Your task to perform on an android device: Open Youtube and go to "Your channel" Image 0: 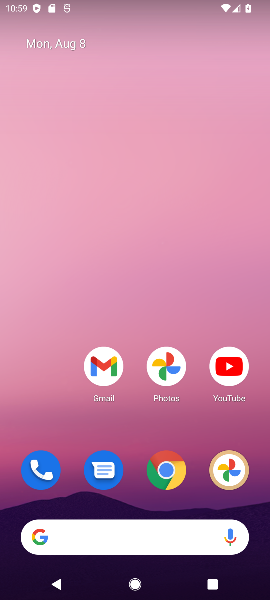
Step 0: drag from (132, 376) to (152, 27)
Your task to perform on an android device: Open Youtube and go to "Your channel" Image 1: 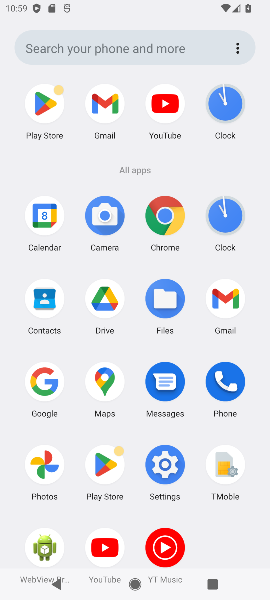
Step 1: click (107, 554)
Your task to perform on an android device: Open Youtube and go to "Your channel" Image 2: 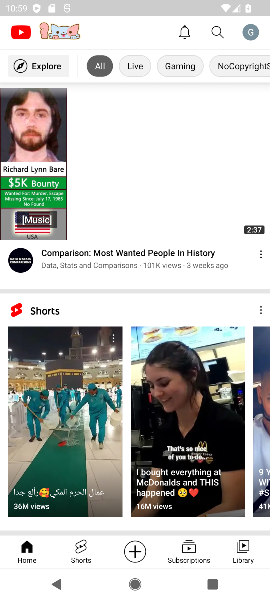
Step 2: click (249, 36)
Your task to perform on an android device: Open Youtube and go to "Your channel" Image 3: 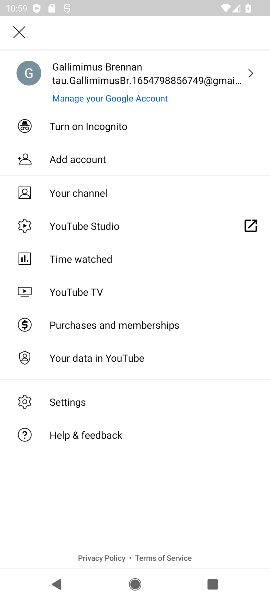
Step 3: click (77, 191)
Your task to perform on an android device: Open Youtube and go to "Your channel" Image 4: 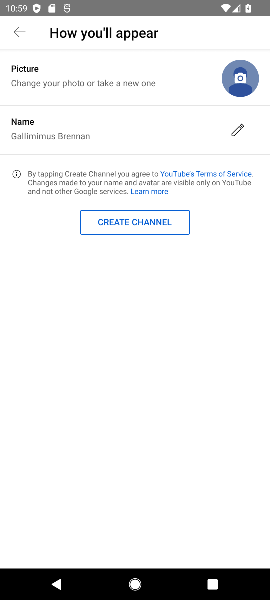
Step 4: task complete